Your task to perform on an android device: add a label to a message in the gmail app Image 0: 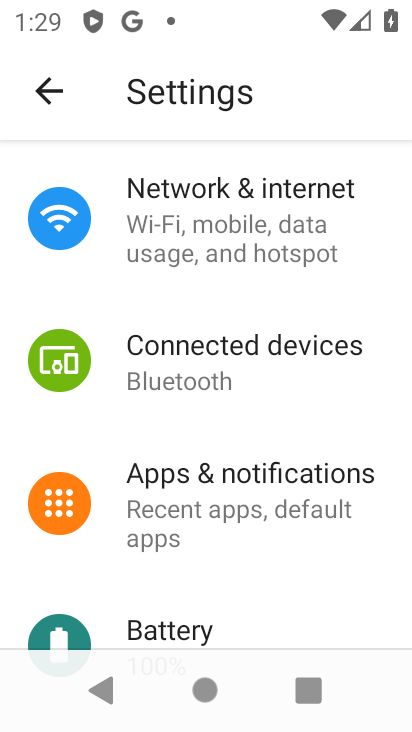
Step 0: press home button
Your task to perform on an android device: add a label to a message in the gmail app Image 1: 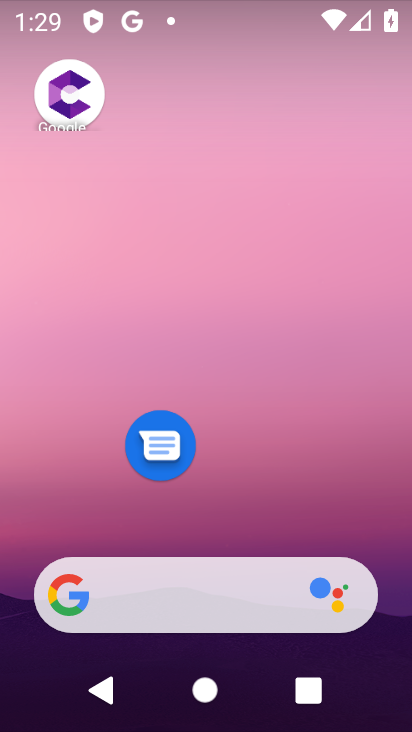
Step 1: drag from (220, 645) to (201, 242)
Your task to perform on an android device: add a label to a message in the gmail app Image 2: 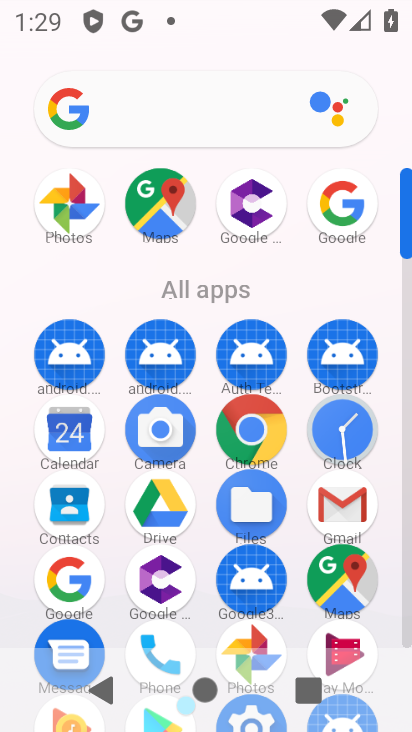
Step 2: click (343, 509)
Your task to perform on an android device: add a label to a message in the gmail app Image 3: 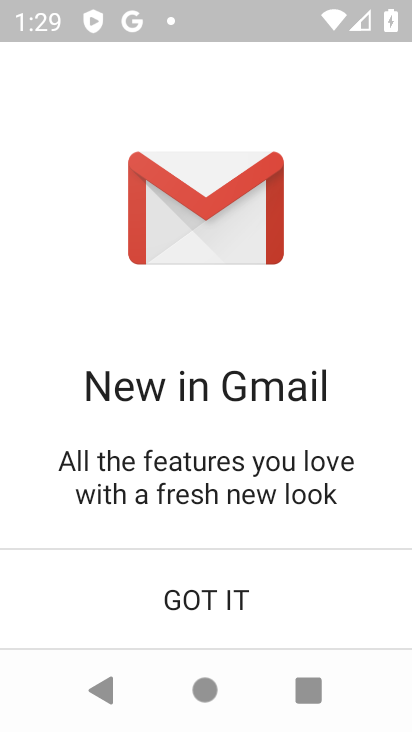
Step 3: click (211, 596)
Your task to perform on an android device: add a label to a message in the gmail app Image 4: 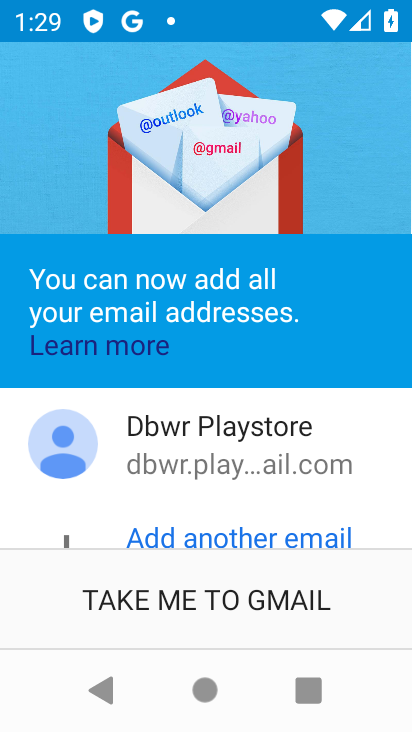
Step 4: click (211, 596)
Your task to perform on an android device: add a label to a message in the gmail app Image 5: 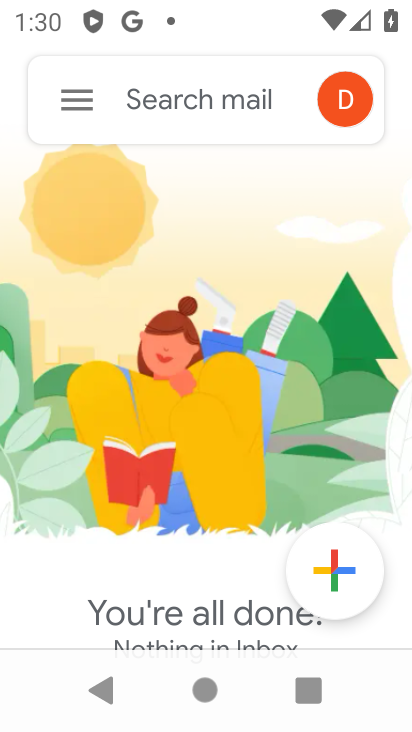
Step 5: task complete